Your task to perform on an android device: toggle translation in the chrome app Image 0: 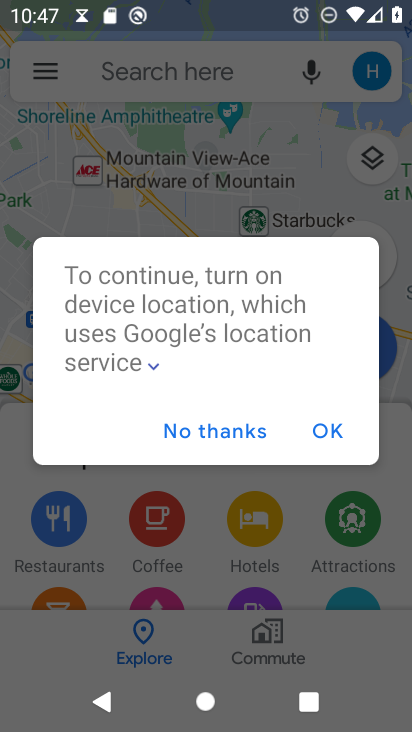
Step 0: press home button
Your task to perform on an android device: toggle translation in the chrome app Image 1: 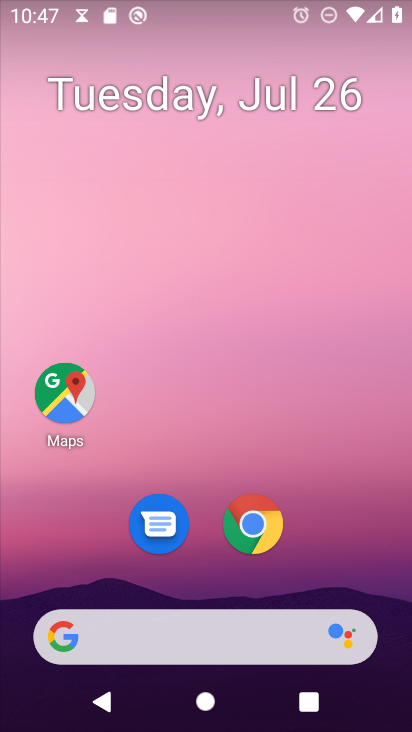
Step 1: click (245, 518)
Your task to perform on an android device: toggle translation in the chrome app Image 2: 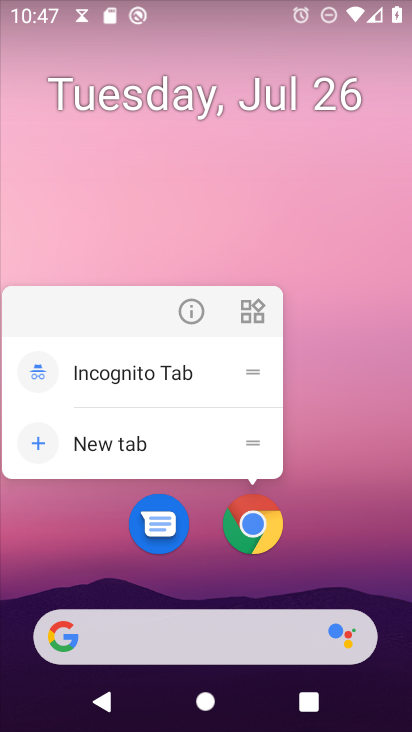
Step 2: click (245, 516)
Your task to perform on an android device: toggle translation in the chrome app Image 3: 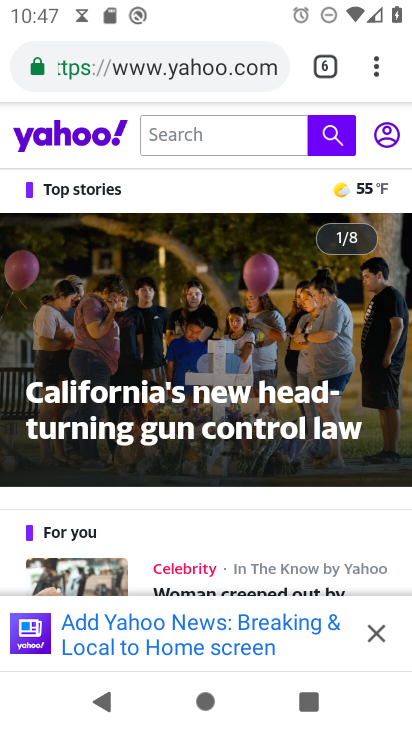
Step 3: drag from (373, 74) to (225, 520)
Your task to perform on an android device: toggle translation in the chrome app Image 4: 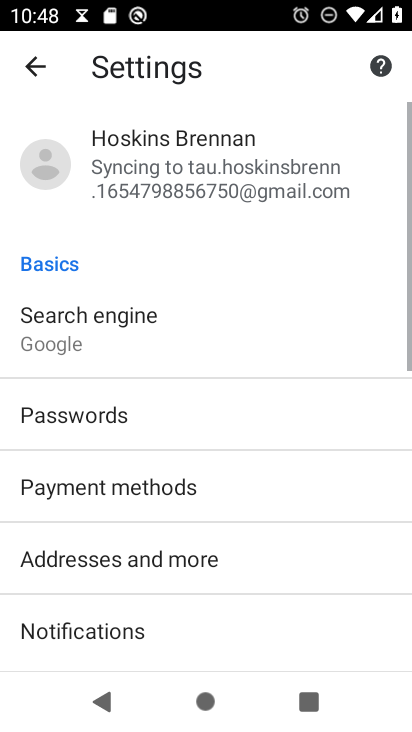
Step 4: drag from (164, 603) to (302, 74)
Your task to perform on an android device: toggle translation in the chrome app Image 5: 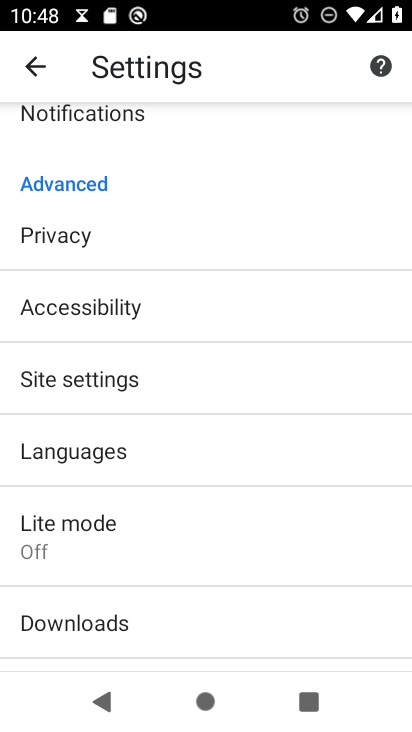
Step 5: click (120, 454)
Your task to perform on an android device: toggle translation in the chrome app Image 6: 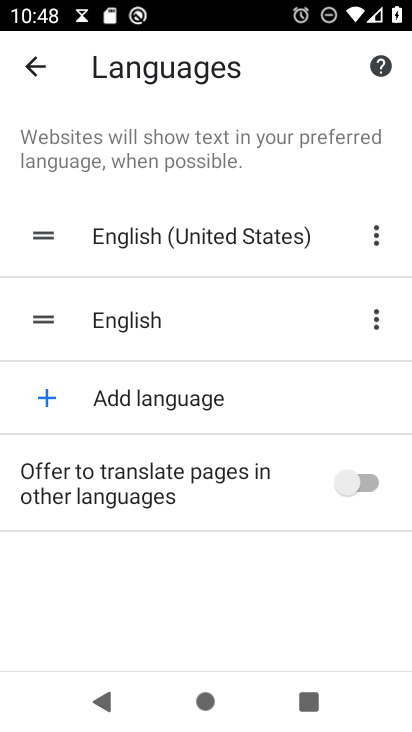
Step 6: click (366, 475)
Your task to perform on an android device: toggle translation in the chrome app Image 7: 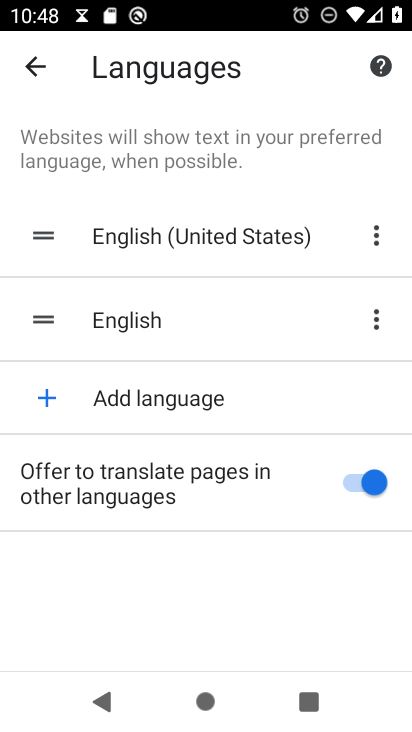
Step 7: task complete